Your task to perform on an android device: Search for seafood restaurants on Google Maps Image 0: 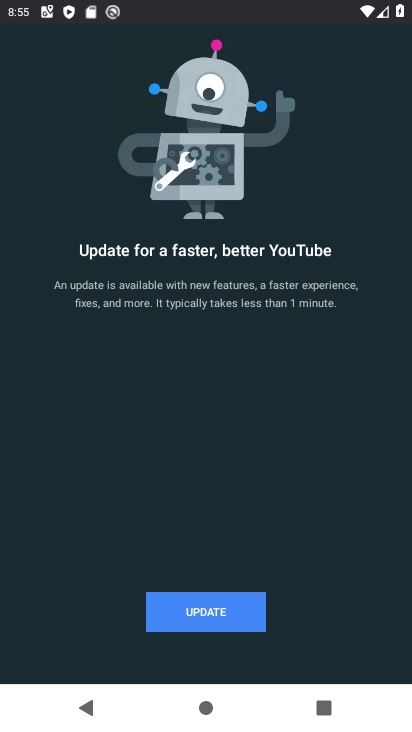
Step 0: press home button
Your task to perform on an android device: Search for seafood restaurants on Google Maps Image 1: 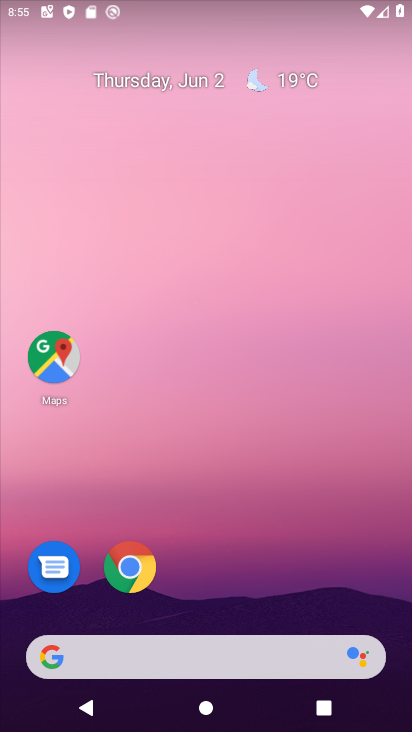
Step 1: click (53, 349)
Your task to perform on an android device: Search for seafood restaurants on Google Maps Image 2: 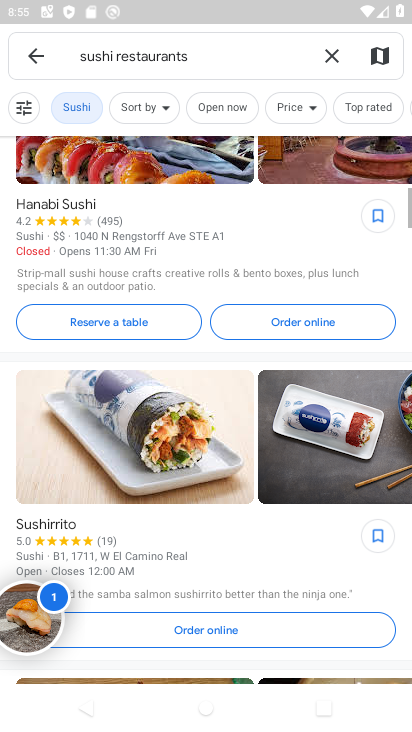
Step 2: click (333, 55)
Your task to perform on an android device: Search for seafood restaurants on Google Maps Image 3: 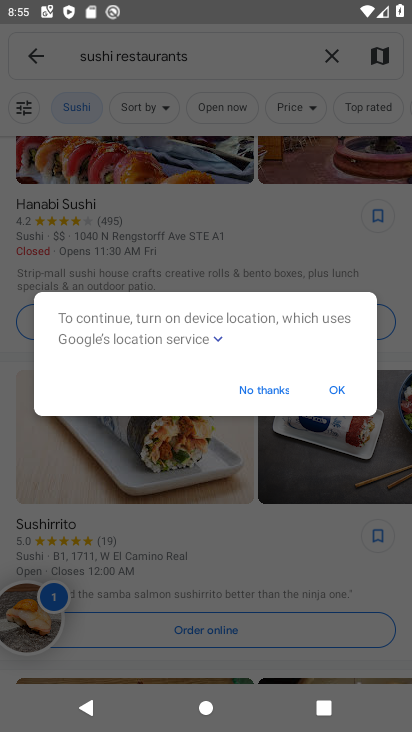
Step 3: click (346, 395)
Your task to perform on an android device: Search for seafood restaurants on Google Maps Image 4: 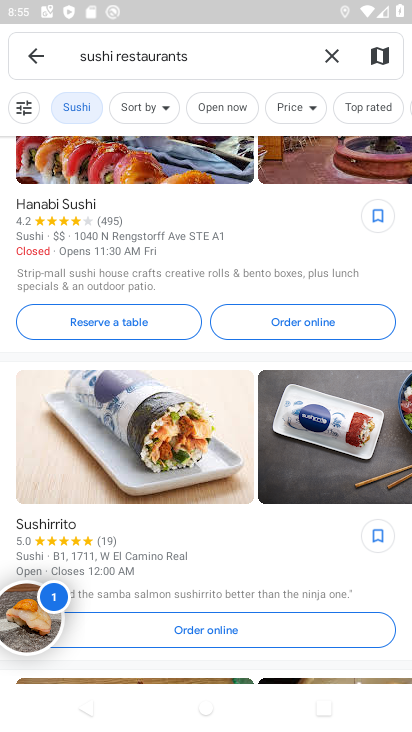
Step 4: click (335, 55)
Your task to perform on an android device: Search for seafood restaurants on Google Maps Image 5: 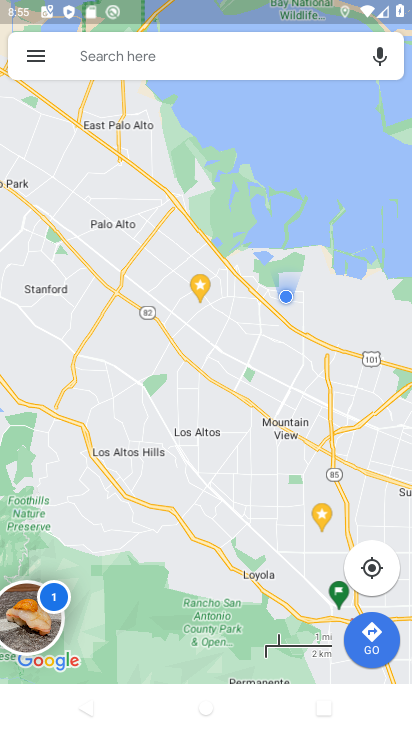
Step 5: click (178, 60)
Your task to perform on an android device: Search for seafood restaurants on Google Maps Image 6: 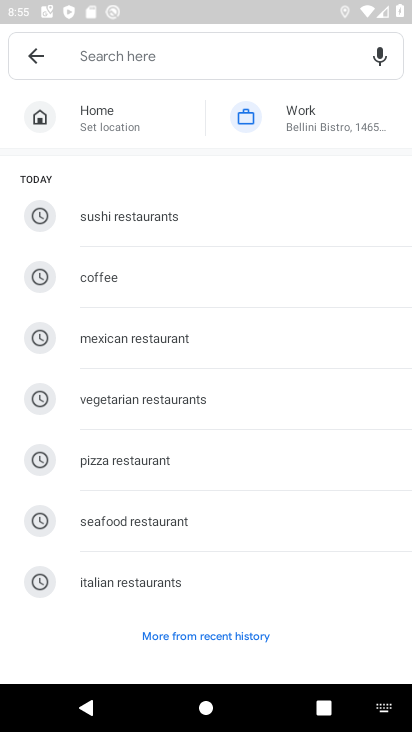
Step 6: click (114, 516)
Your task to perform on an android device: Search for seafood restaurants on Google Maps Image 7: 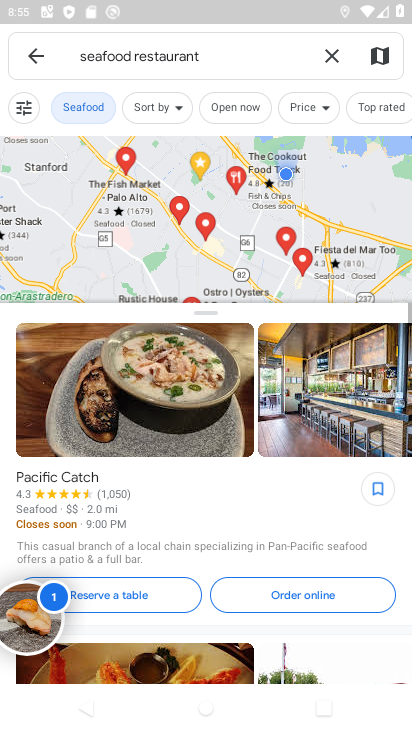
Step 7: task complete